Your task to perform on an android device: toggle show notifications on the lock screen Image 0: 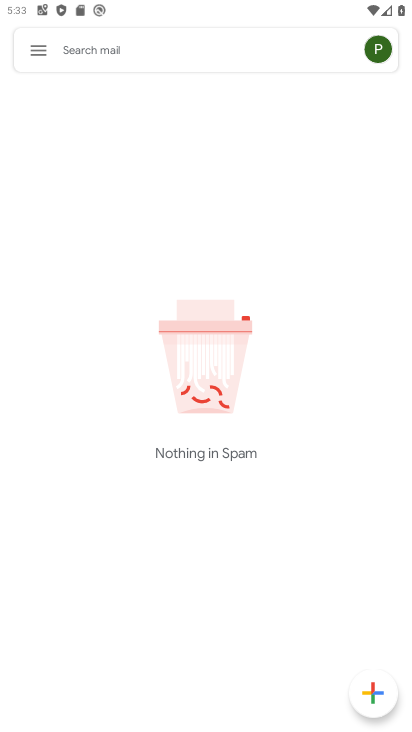
Step 0: press home button
Your task to perform on an android device: toggle show notifications on the lock screen Image 1: 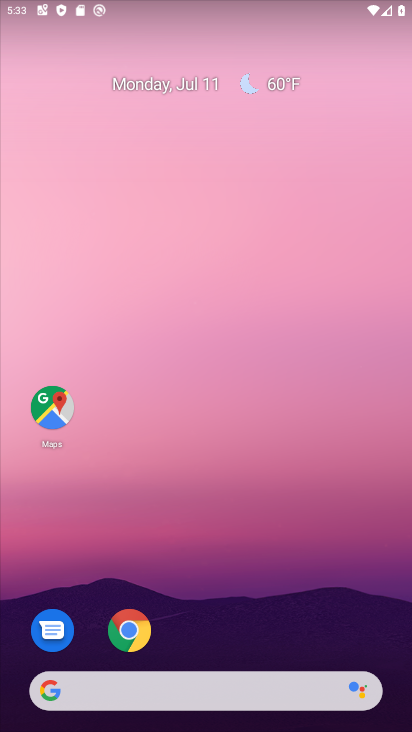
Step 1: click (226, 57)
Your task to perform on an android device: toggle show notifications on the lock screen Image 2: 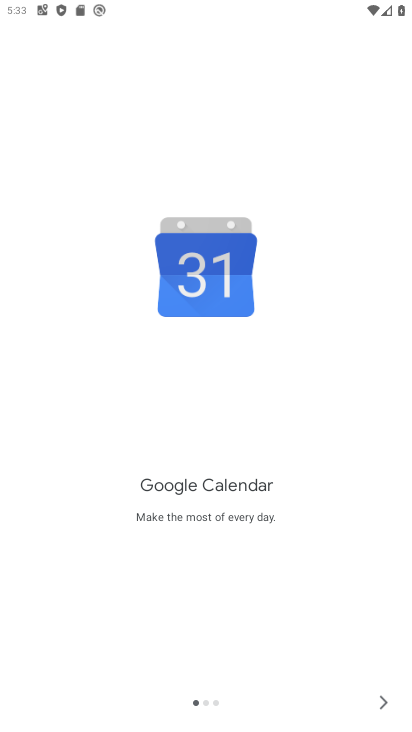
Step 2: press home button
Your task to perform on an android device: toggle show notifications on the lock screen Image 3: 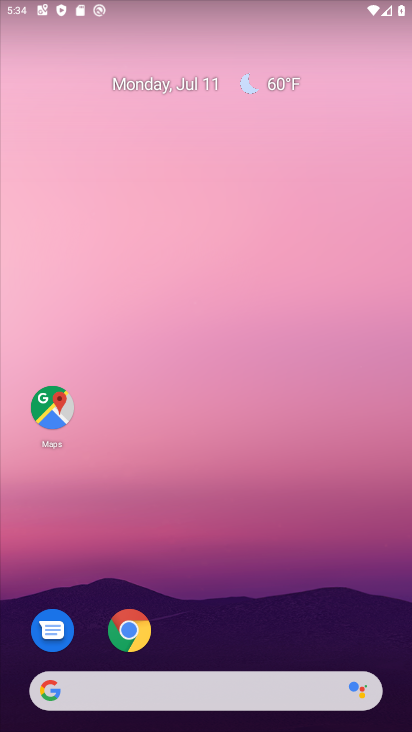
Step 3: drag from (167, 613) to (167, 37)
Your task to perform on an android device: toggle show notifications on the lock screen Image 4: 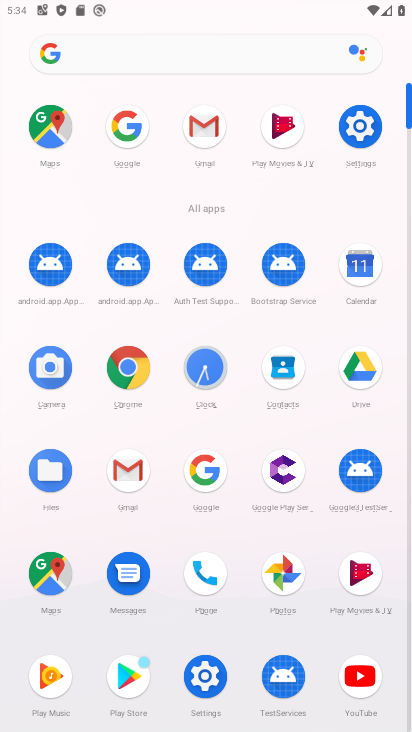
Step 4: click (360, 125)
Your task to perform on an android device: toggle show notifications on the lock screen Image 5: 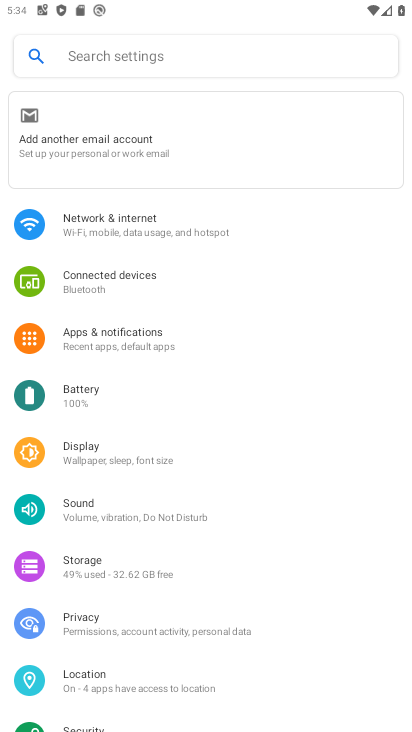
Step 5: click (95, 337)
Your task to perform on an android device: toggle show notifications on the lock screen Image 6: 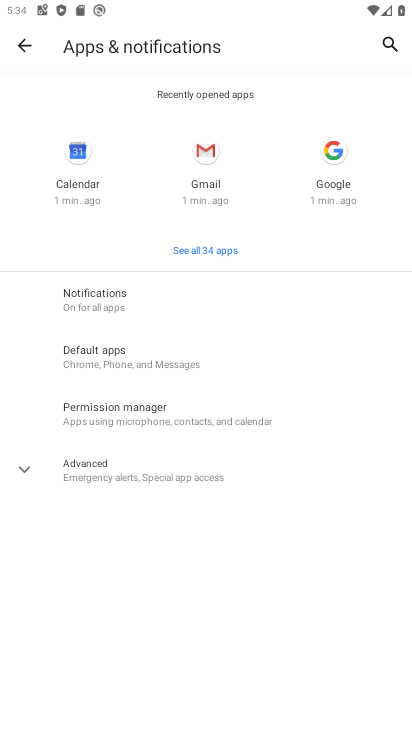
Step 6: click (107, 302)
Your task to perform on an android device: toggle show notifications on the lock screen Image 7: 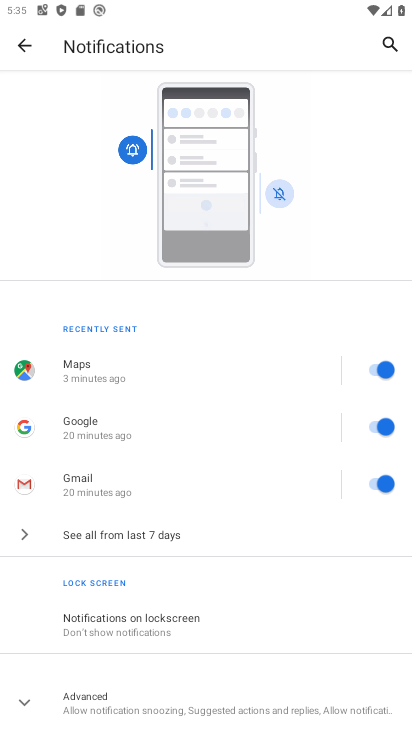
Step 7: click (138, 631)
Your task to perform on an android device: toggle show notifications on the lock screen Image 8: 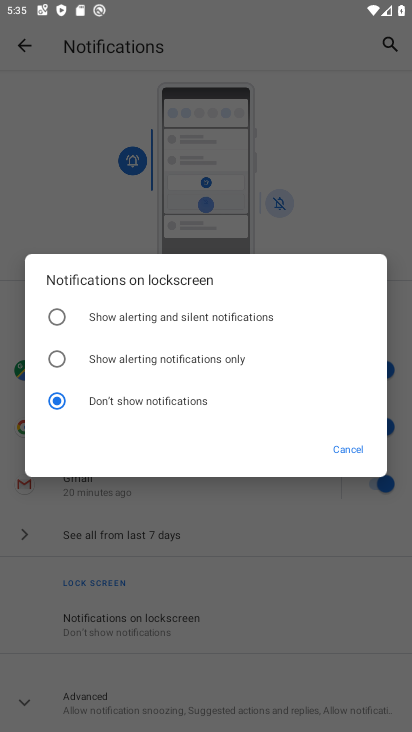
Step 8: click (51, 310)
Your task to perform on an android device: toggle show notifications on the lock screen Image 9: 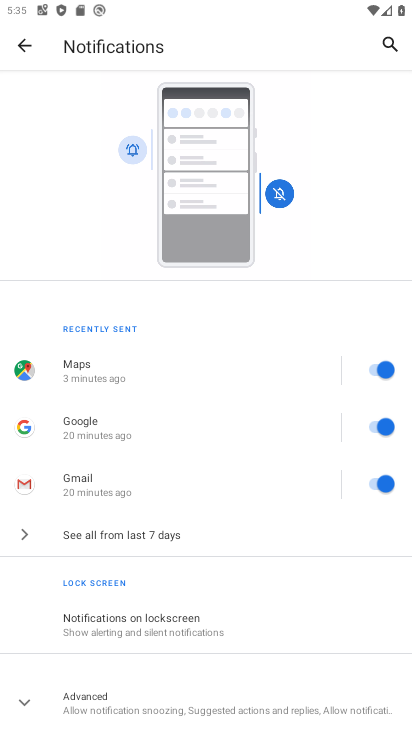
Step 9: task complete